Your task to perform on an android device: visit the assistant section in the google photos Image 0: 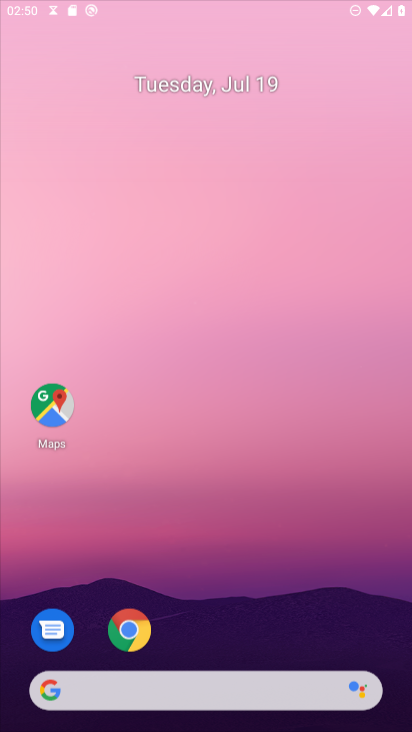
Step 0: press home button
Your task to perform on an android device: visit the assistant section in the google photos Image 1: 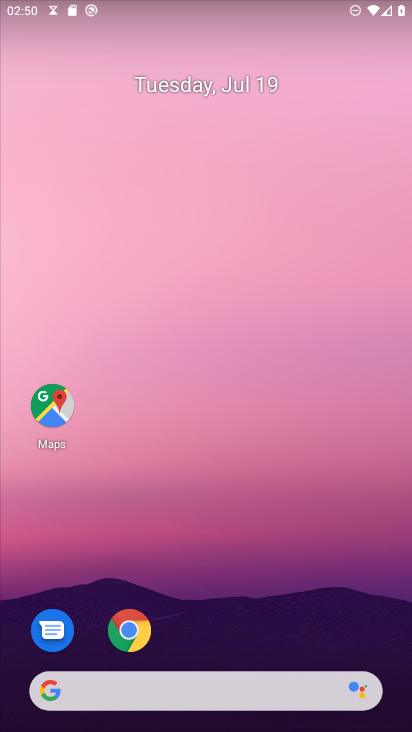
Step 1: drag from (160, 686) to (262, 254)
Your task to perform on an android device: visit the assistant section in the google photos Image 2: 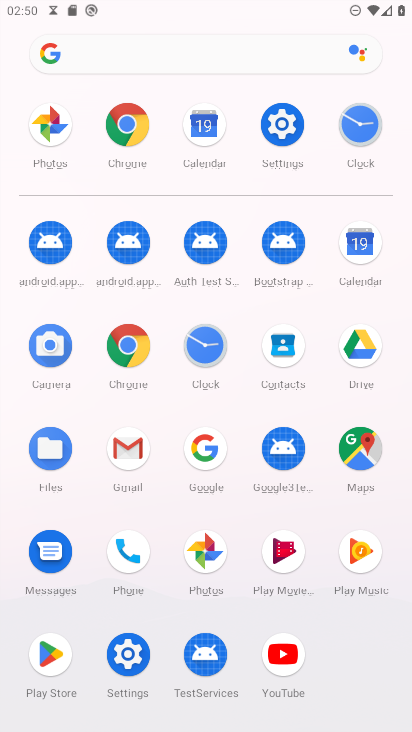
Step 2: click (208, 549)
Your task to perform on an android device: visit the assistant section in the google photos Image 3: 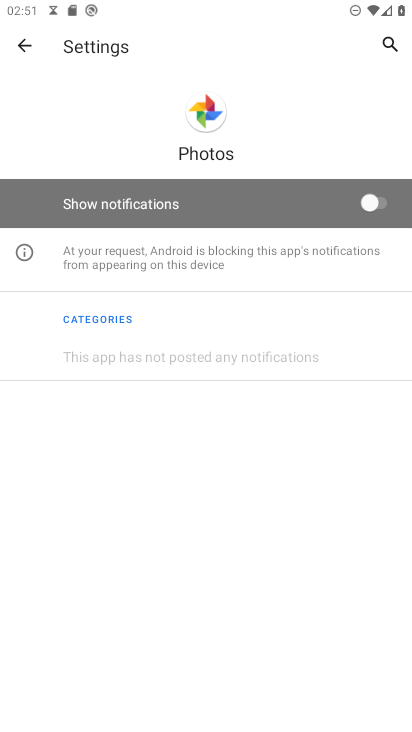
Step 3: click (23, 45)
Your task to perform on an android device: visit the assistant section in the google photos Image 4: 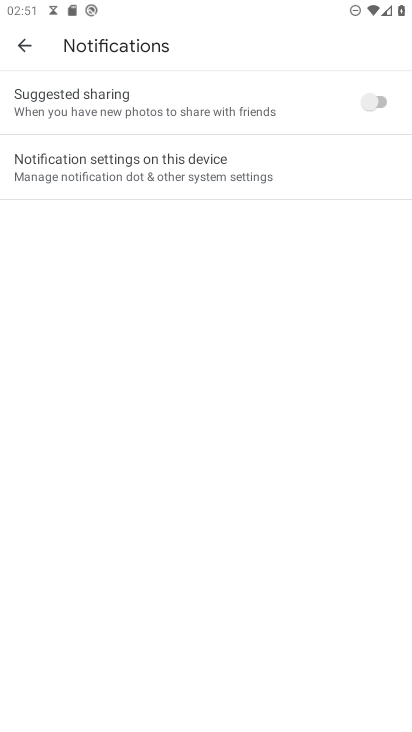
Step 4: click (23, 45)
Your task to perform on an android device: visit the assistant section in the google photos Image 5: 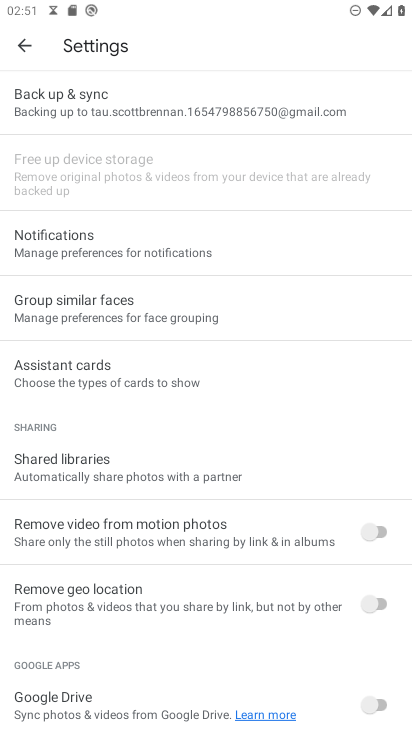
Step 5: click (22, 42)
Your task to perform on an android device: visit the assistant section in the google photos Image 6: 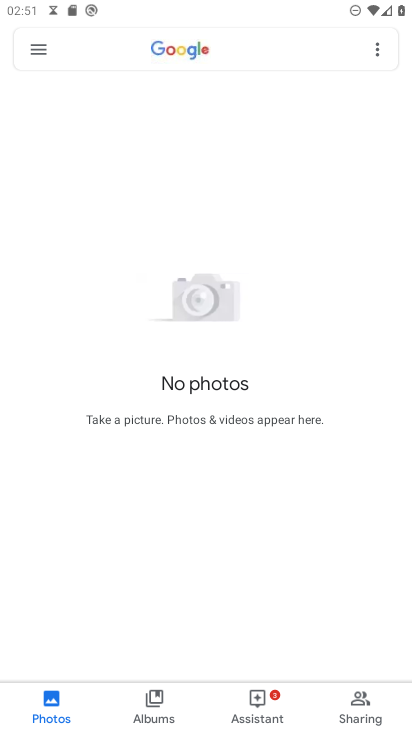
Step 6: click (269, 707)
Your task to perform on an android device: visit the assistant section in the google photos Image 7: 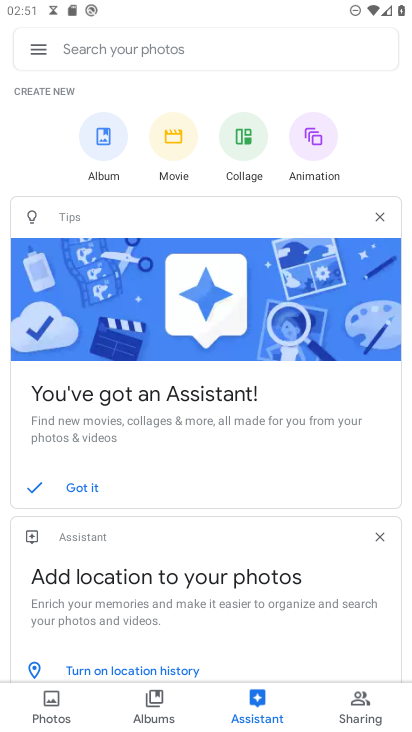
Step 7: task complete